Your task to perform on an android device: Open calendar and show me the third week of next month Image 0: 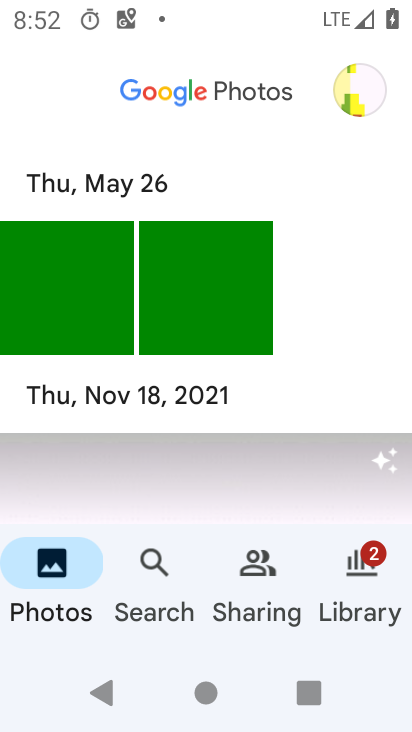
Step 0: press home button
Your task to perform on an android device: Open calendar and show me the third week of next month Image 1: 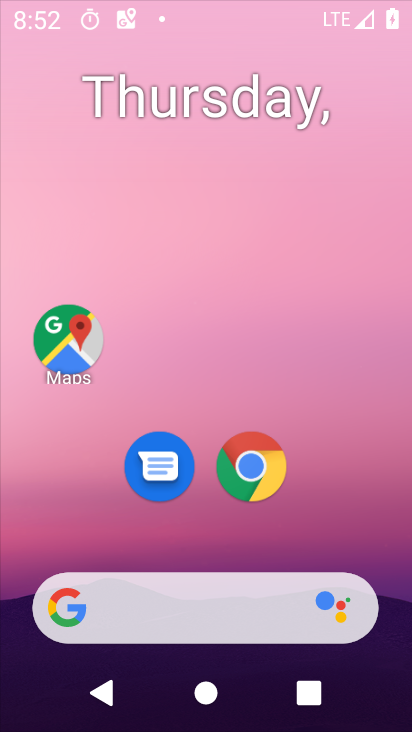
Step 1: press home button
Your task to perform on an android device: Open calendar and show me the third week of next month Image 2: 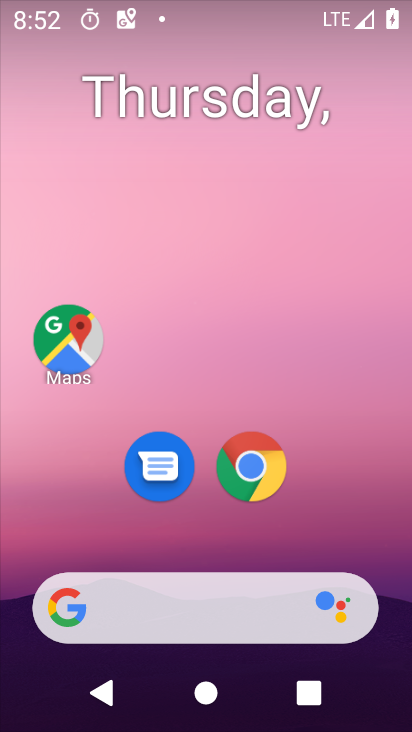
Step 2: drag from (308, 536) to (296, 49)
Your task to perform on an android device: Open calendar and show me the third week of next month Image 3: 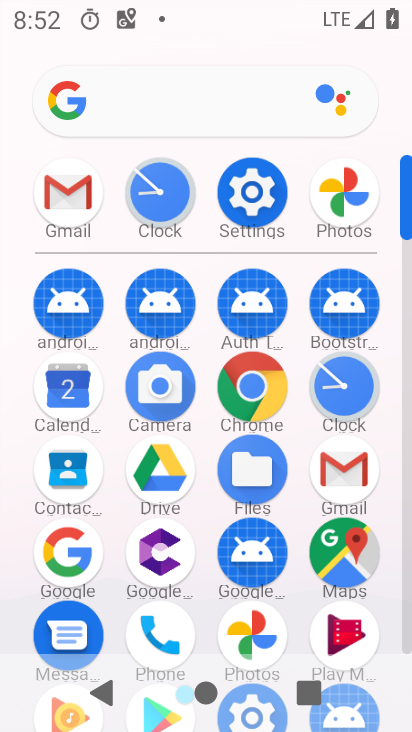
Step 3: click (76, 393)
Your task to perform on an android device: Open calendar and show me the third week of next month Image 4: 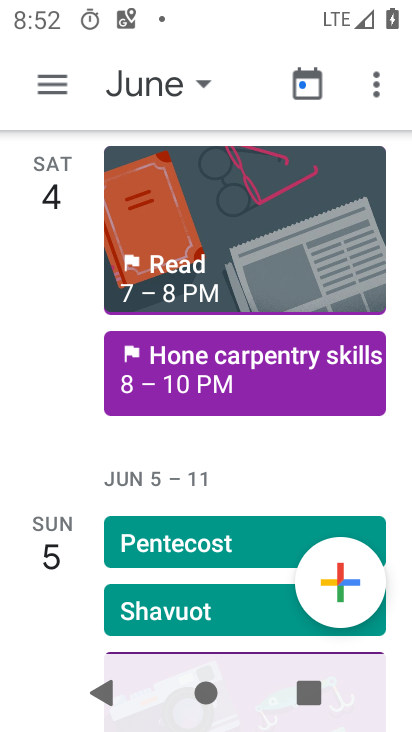
Step 4: click (307, 80)
Your task to perform on an android device: Open calendar and show me the third week of next month Image 5: 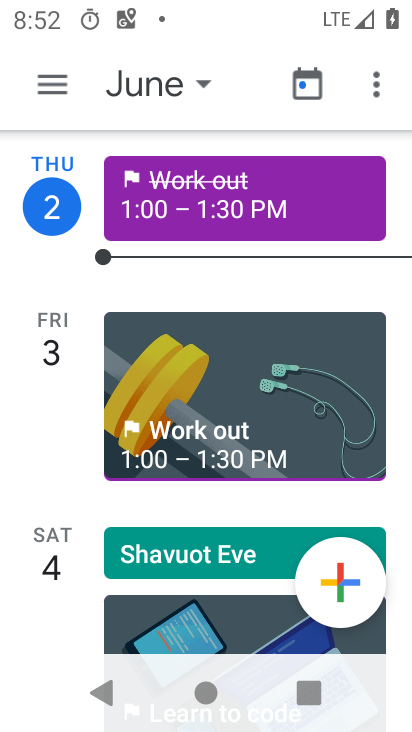
Step 5: click (42, 82)
Your task to perform on an android device: Open calendar and show me the third week of next month Image 6: 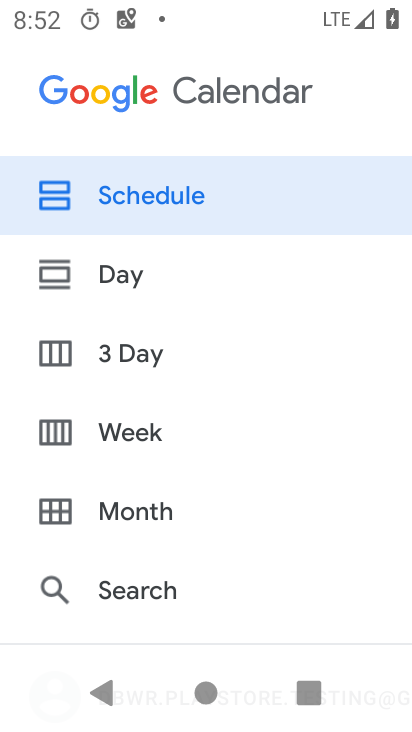
Step 6: click (121, 502)
Your task to perform on an android device: Open calendar and show me the third week of next month Image 7: 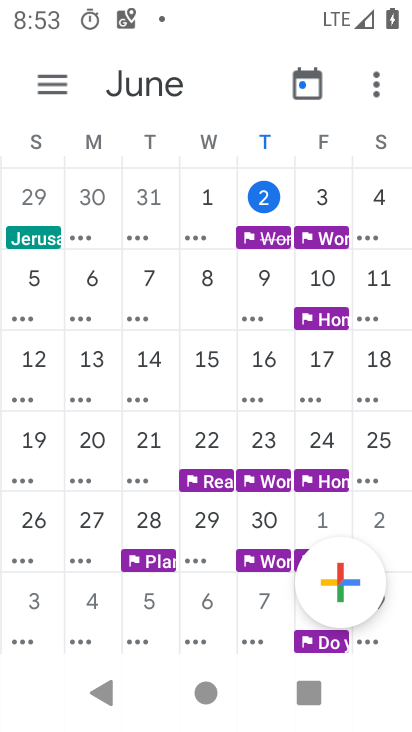
Step 7: drag from (359, 380) to (7, 273)
Your task to perform on an android device: Open calendar and show me the third week of next month Image 8: 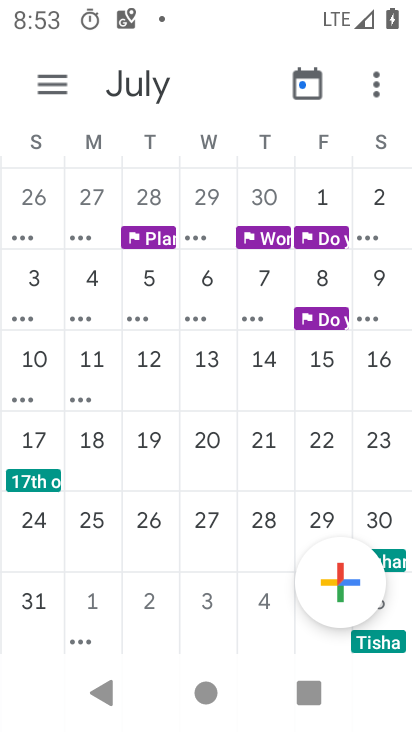
Step 8: click (28, 372)
Your task to perform on an android device: Open calendar and show me the third week of next month Image 9: 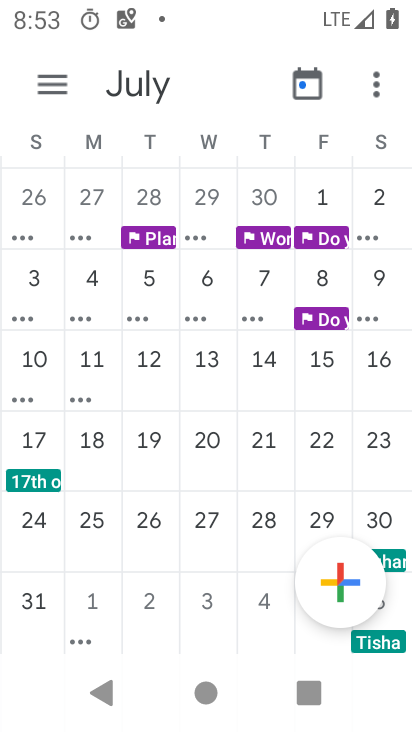
Step 9: click (24, 362)
Your task to perform on an android device: Open calendar and show me the third week of next month Image 10: 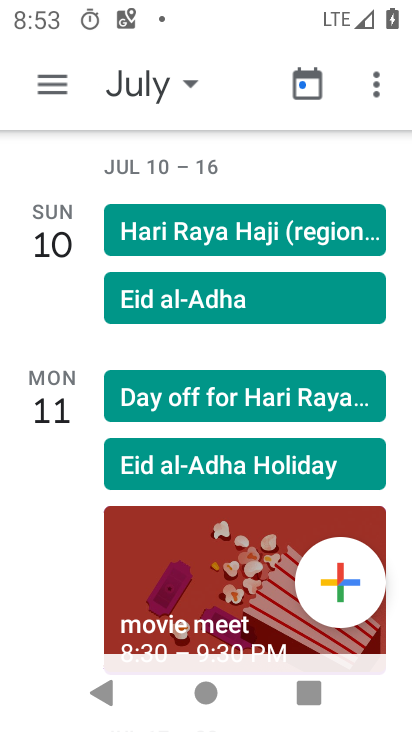
Step 10: click (304, 82)
Your task to perform on an android device: Open calendar and show me the third week of next month Image 11: 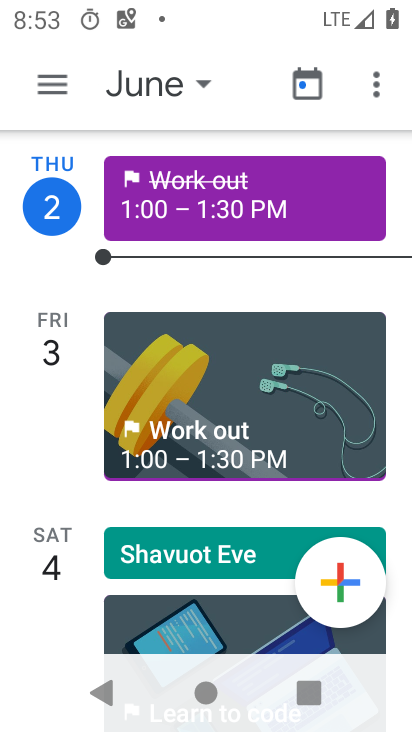
Step 11: task complete